Your task to perform on an android device: Go to notification settings Image 0: 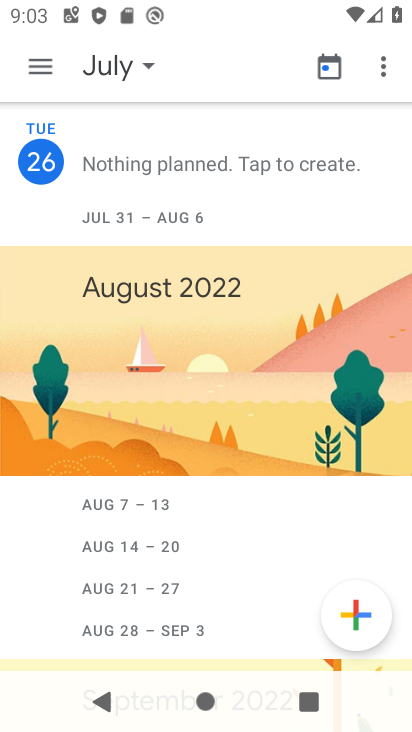
Step 0: press home button
Your task to perform on an android device: Go to notification settings Image 1: 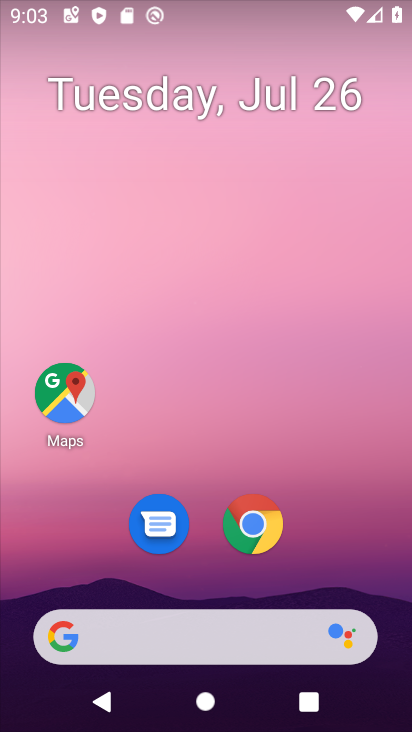
Step 1: drag from (218, 634) to (323, 140)
Your task to perform on an android device: Go to notification settings Image 2: 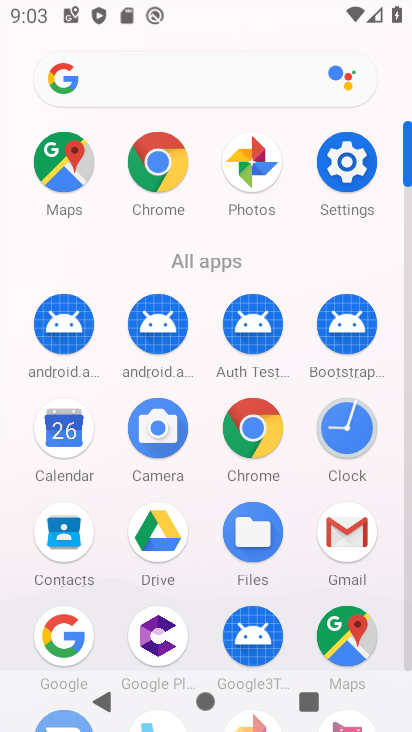
Step 2: click (349, 175)
Your task to perform on an android device: Go to notification settings Image 3: 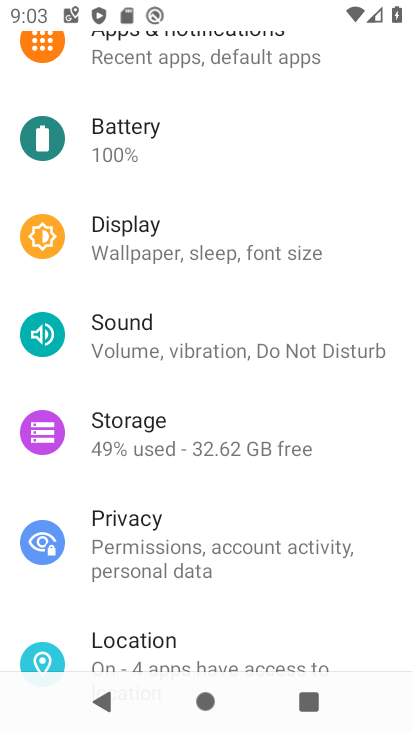
Step 3: drag from (280, 136) to (240, 538)
Your task to perform on an android device: Go to notification settings Image 4: 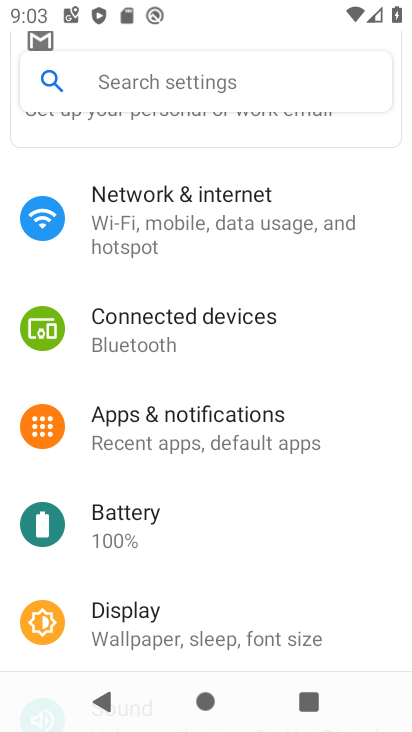
Step 4: click (209, 422)
Your task to perform on an android device: Go to notification settings Image 5: 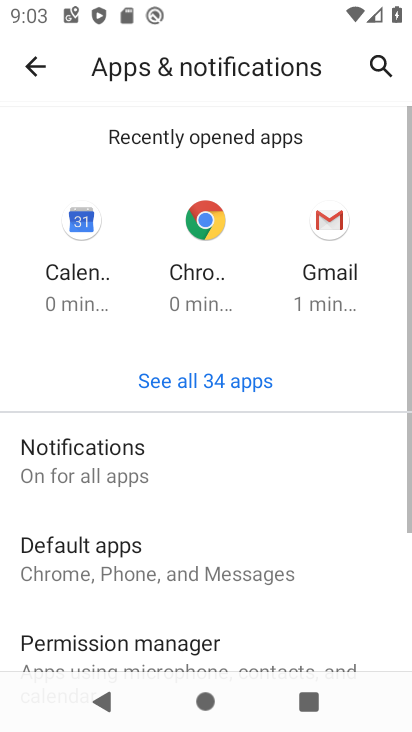
Step 5: click (118, 455)
Your task to perform on an android device: Go to notification settings Image 6: 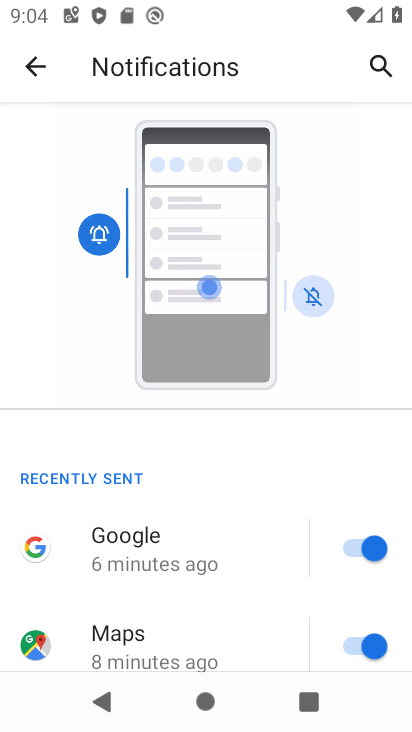
Step 6: task complete